Your task to perform on an android device: turn on sleep mode Image 0: 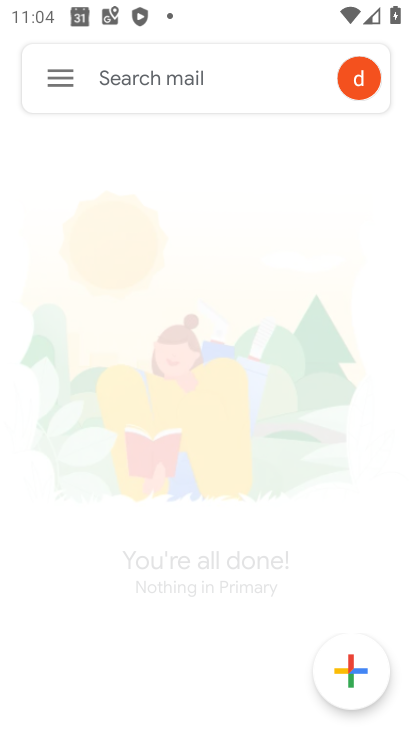
Step 0: drag from (119, 634) to (271, 205)
Your task to perform on an android device: turn on sleep mode Image 1: 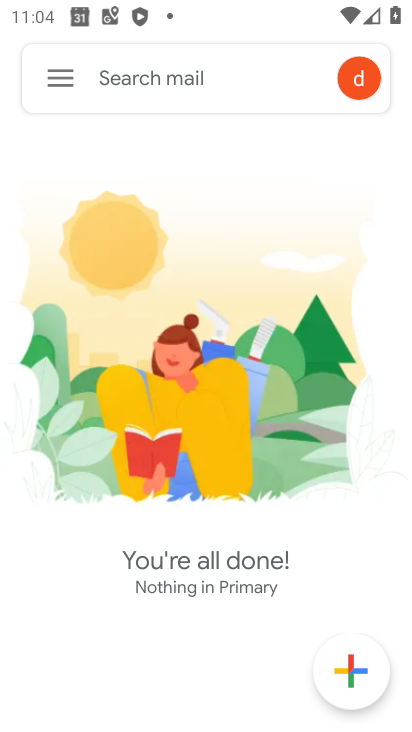
Step 1: press home button
Your task to perform on an android device: turn on sleep mode Image 2: 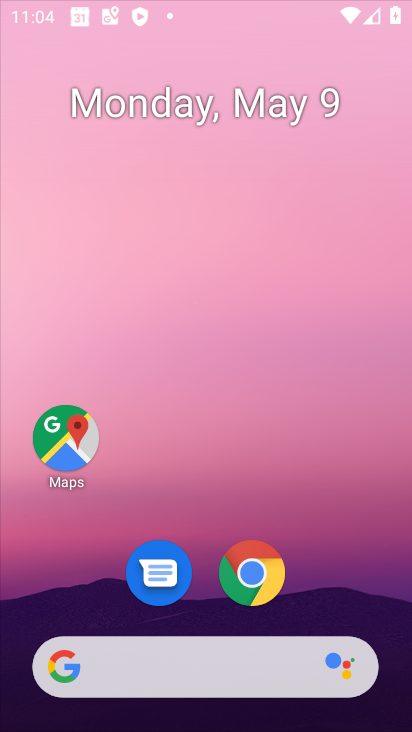
Step 2: drag from (184, 611) to (284, 22)
Your task to perform on an android device: turn on sleep mode Image 3: 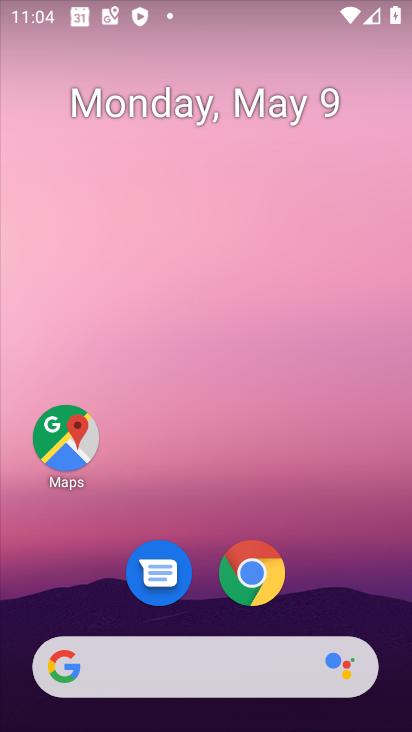
Step 3: drag from (211, 593) to (284, 132)
Your task to perform on an android device: turn on sleep mode Image 4: 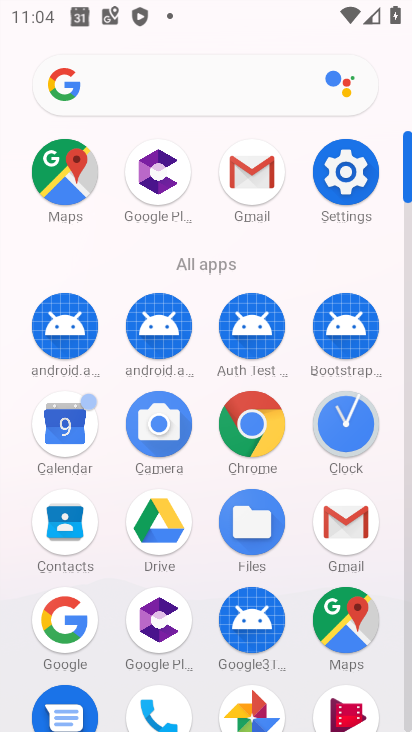
Step 4: click (345, 180)
Your task to perform on an android device: turn on sleep mode Image 5: 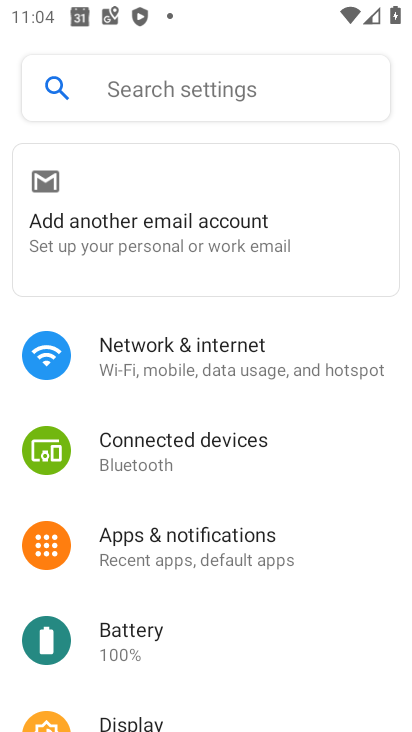
Step 5: drag from (166, 577) to (317, 161)
Your task to perform on an android device: turn on sleep mode Image 6: 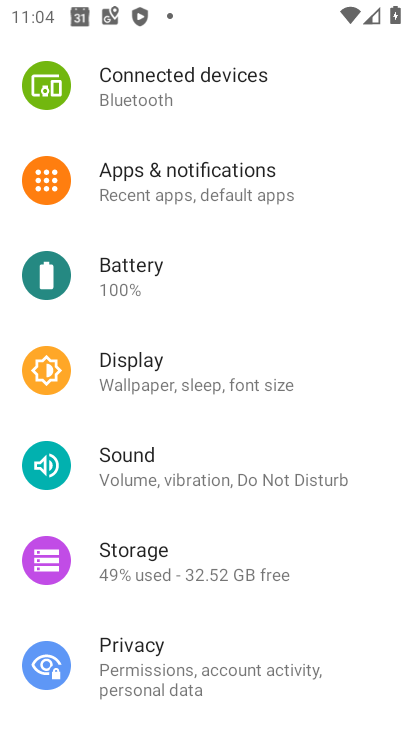
Step 6: click (125, 362)
Your task to perform on an android device: turn on sleep mode Image 7: 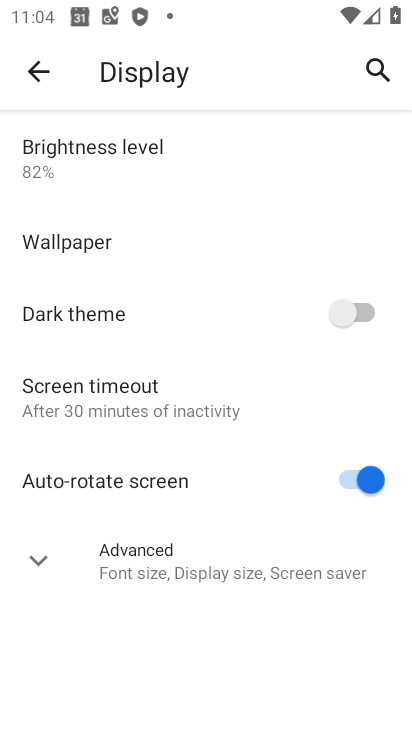
Step 7: click (83, 368)
Your task to perform on an android device: turn on sleep mode Image 8: 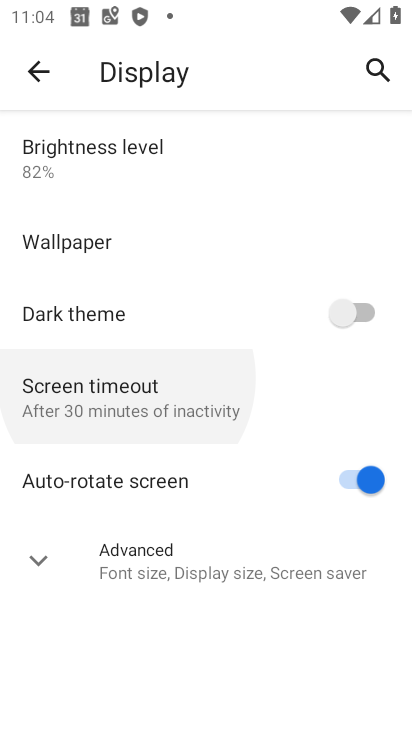
Step 8: click (83, 368)
Your task to perform on an android device: turn on sleep mode Image 9: 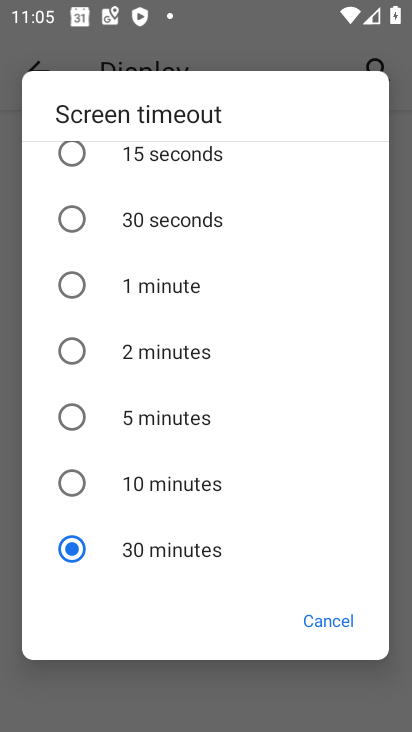
Step 9: task complete